Your task to perform on an android device: Open battery settings Image 0: 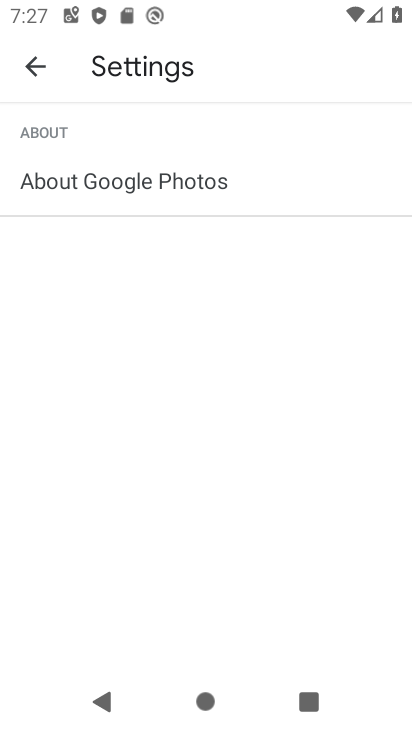
Step 0: press home button
Your task to perform on an android device: Open battery settings Image 1: 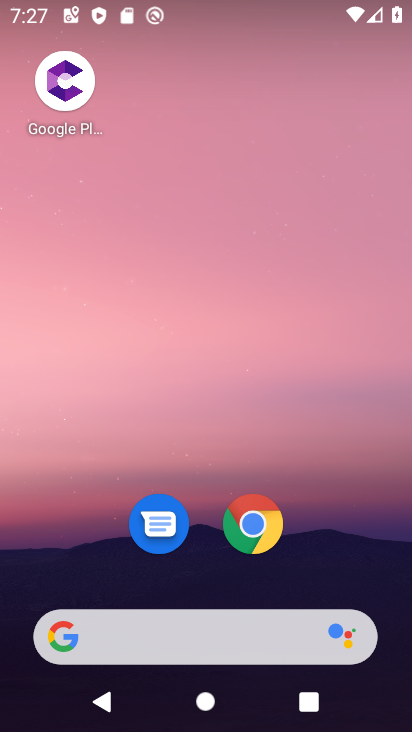
Step 1: drag from (185, 615) to (284, 19)
Your task to perform on an android device: Open battery settings Image 2: 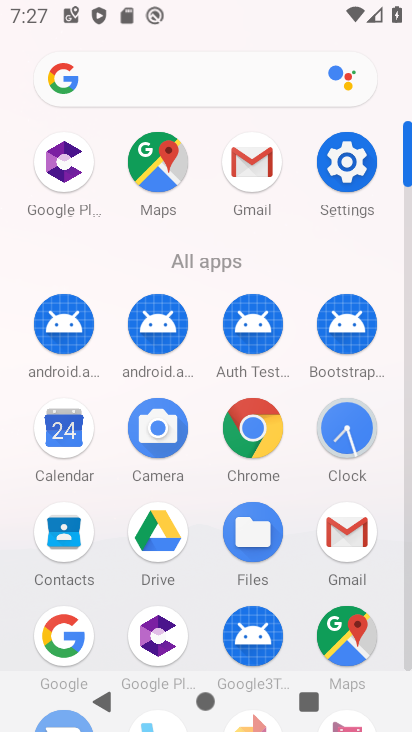
Step 2: click (351, 169)
Your task to perform on an android device: Open battery settings Image 3: 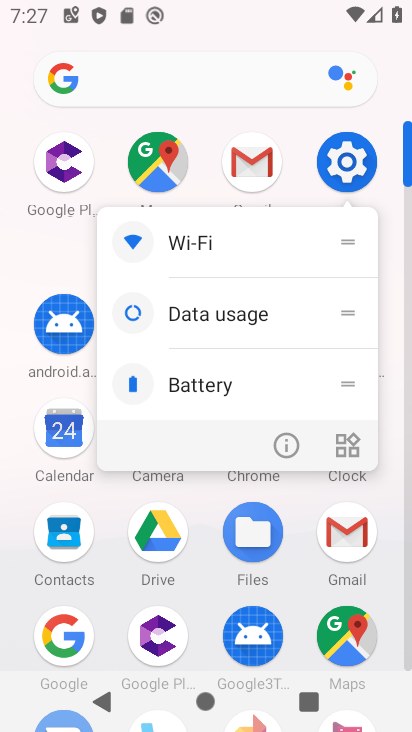
Step 3: click (351, 164)
Your task to perform on an android device: Open battery settings Image 4: 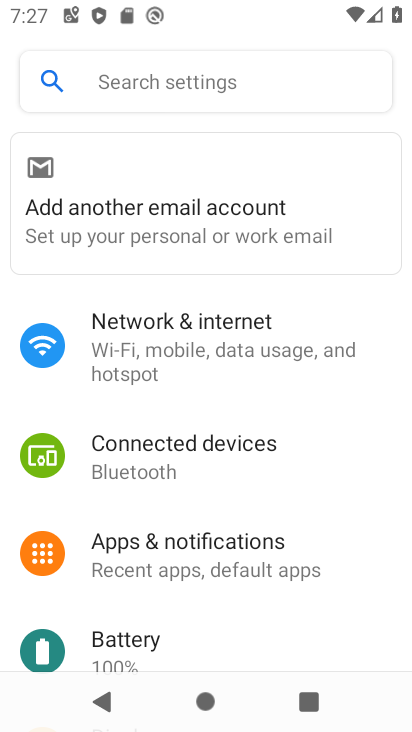
Step 4: drag from (285, 593) to (287, 155)
Your task to perform on an android device: Open battery settings Image 5: 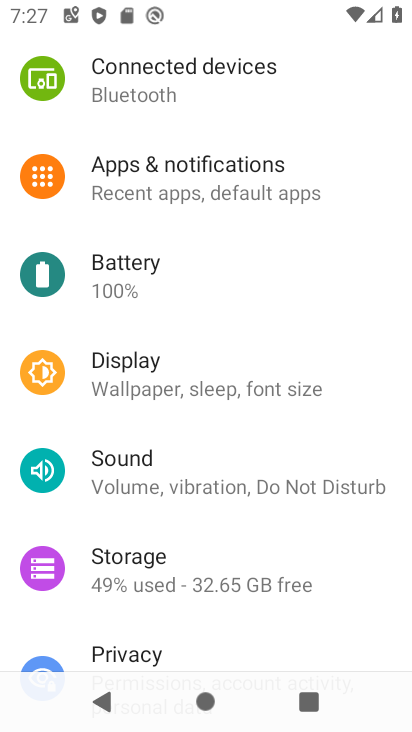
Step 5: click (118, 275)
Your task to perform on an android device: Open battery settings Image 6: 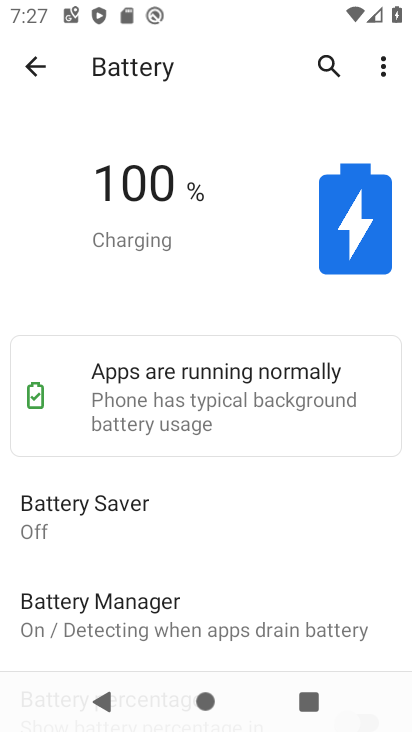
Step 6: task complete